Your task to perform on an android device: turn off sleep mode Image 0: 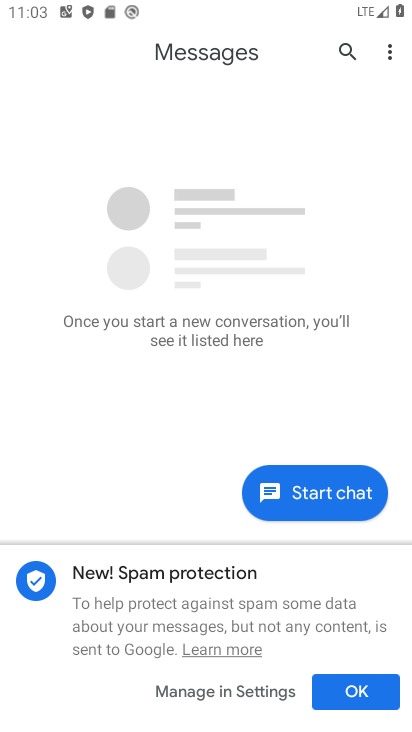
Step 0: press home button
Your task to perform on an android device: turn off sleep mode Image 1: 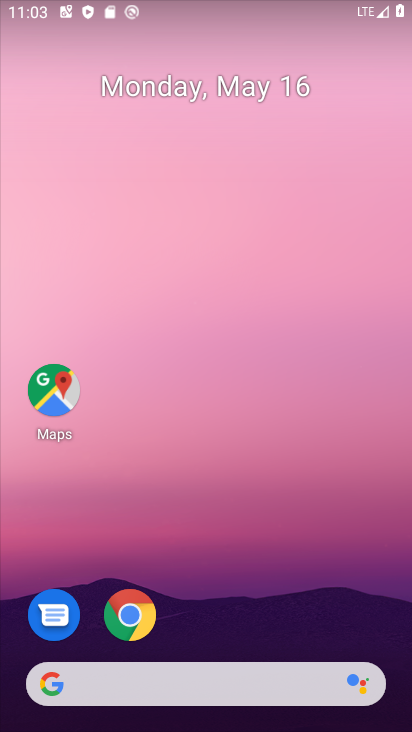
Step 1: drag from (304, 588) to (347, 169)
Your task to perform on an android device: turn off sleep mode Image 2: 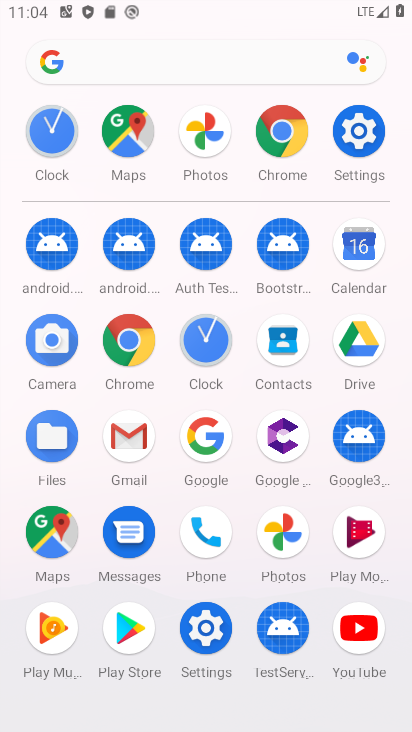
Step 2: drag from (261, 452) to (289, 231)
Your task to perform on an android device: turn off sleep mode Image 3: 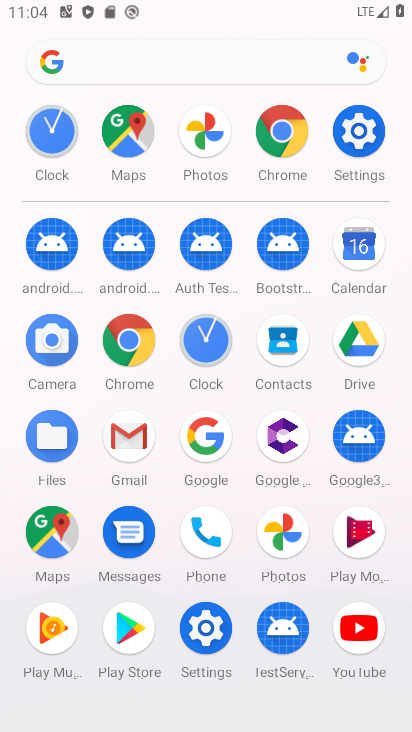
Step 3: click (360, 147)
Your task to perform on an android device: turn off sleep mode Image 4: 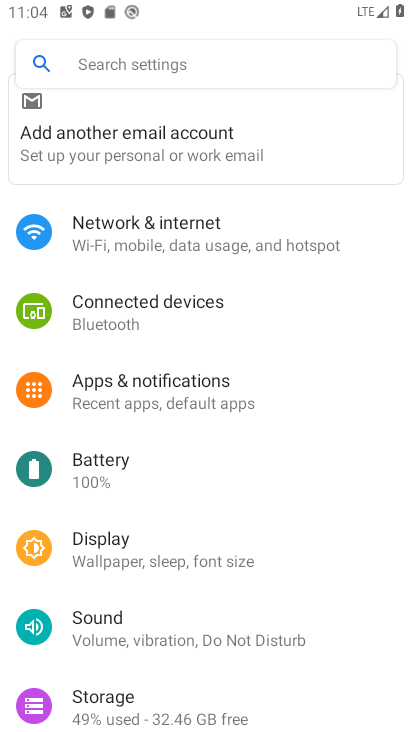
Step 4: drag from (265, 371) to (287, 235)
Your task to perform on an android device: turn off sleep mode Image 5: 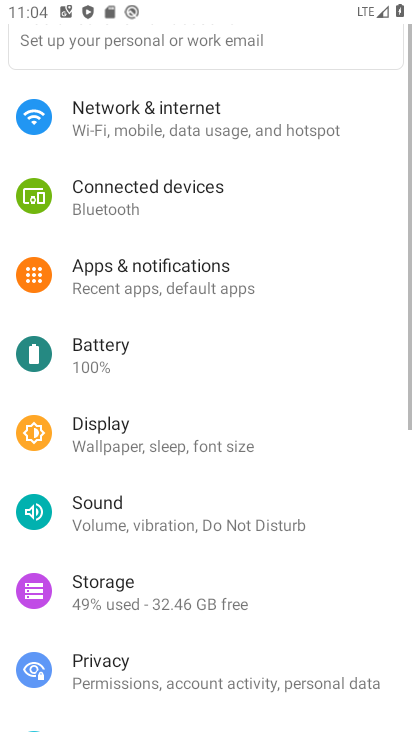
Step 5: click (294, 189)
Your task to perform on an android device: turn off sleep mode Image 6: 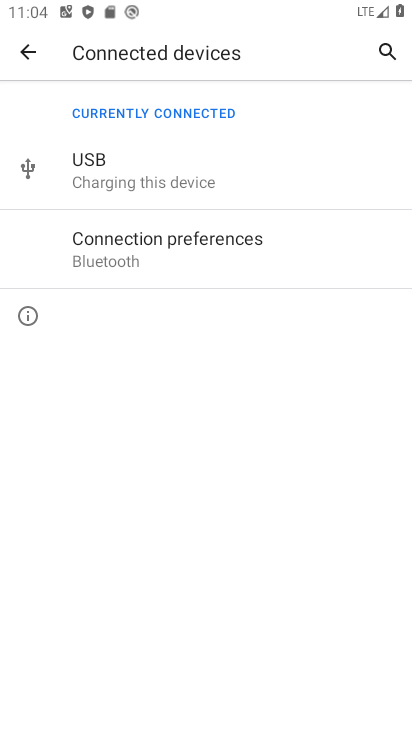
Step 6: click (28, 43)
Your task to perform on an android device: turn off sleep mode Image 7: 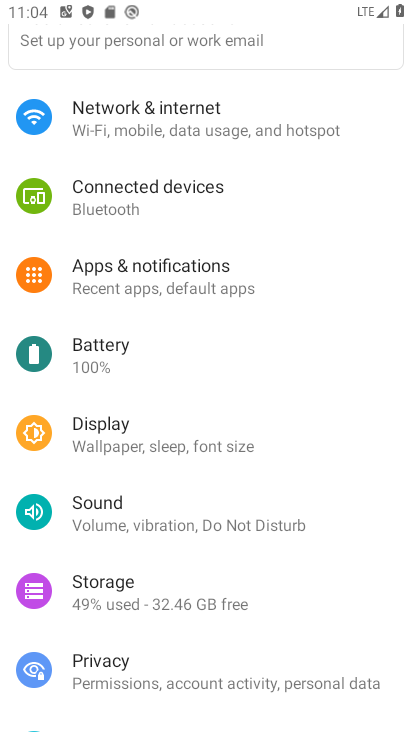
Step 7: click (178, 438)
Your task to perform on an android device: turn off sleep mode Image 8: 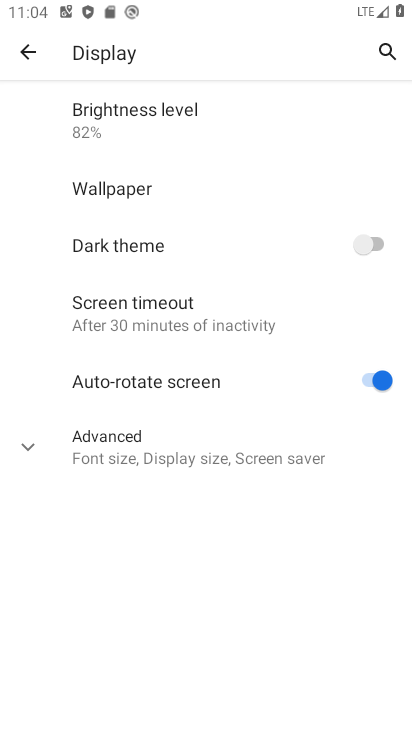
Step 8: task complete